Your task to perform on an android device: delete browsing data in the chrome app Image 0: 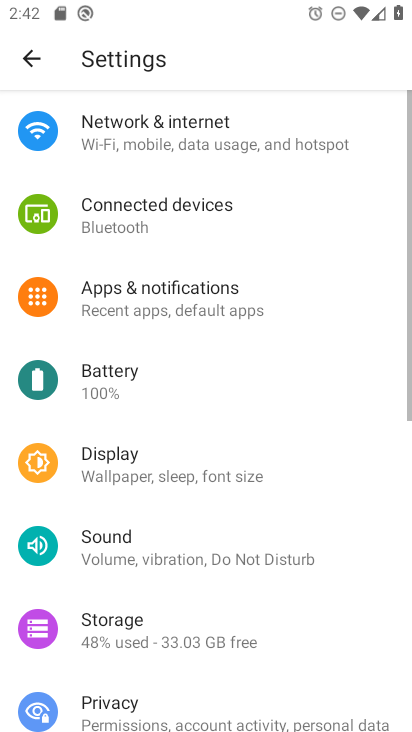
Step 0: press home button
Your task to perform on an android device: delete browsing data in the chrome app Image 1: 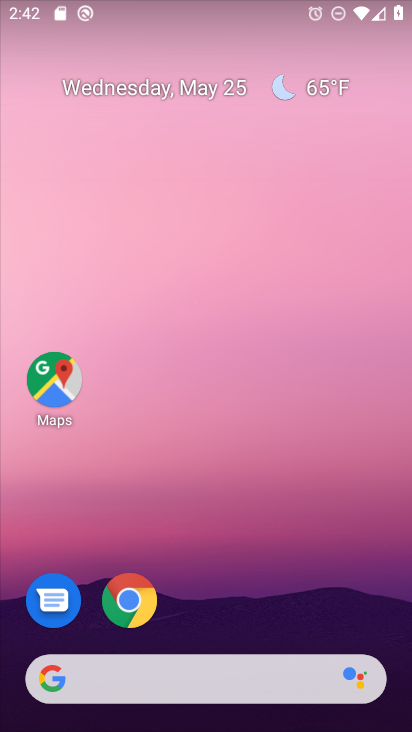
Step 1: click (120, 594)
Your task to perform on an android device: delete browsing data in the chrome app Image 2: 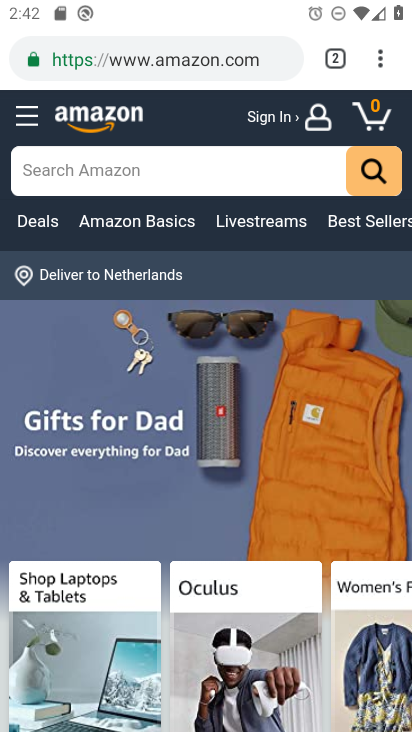
Step 2: drag from (381, 53) to (203, 332)
Your task to perform on an android device: delete browsing data in the chrome app Image 3: 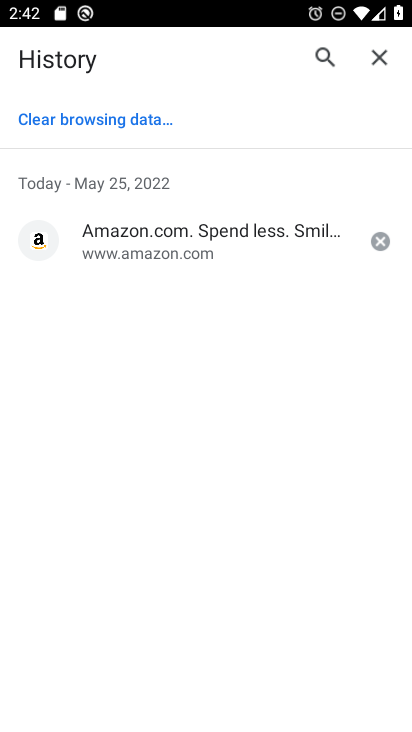
Step 3: click (127, 131)
Your task to perform on an android device: delete browsing data in the chrome app Image 4: 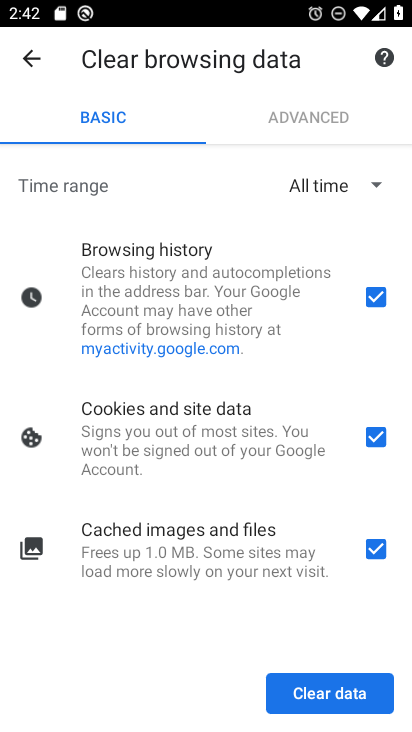
Step 4: click (341, 692)
Your task to perform on an android device: delete browsing data in the chrome app Image 5: 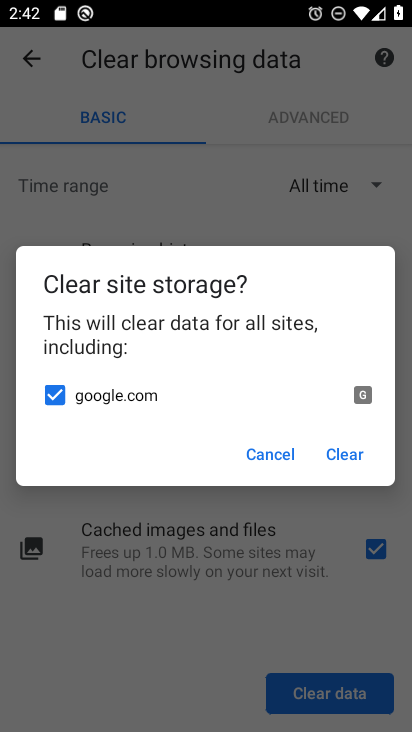
Step 5: click (359, 453)
Your task to perform on an android device: delete browsing data in the chrome app Image 6: 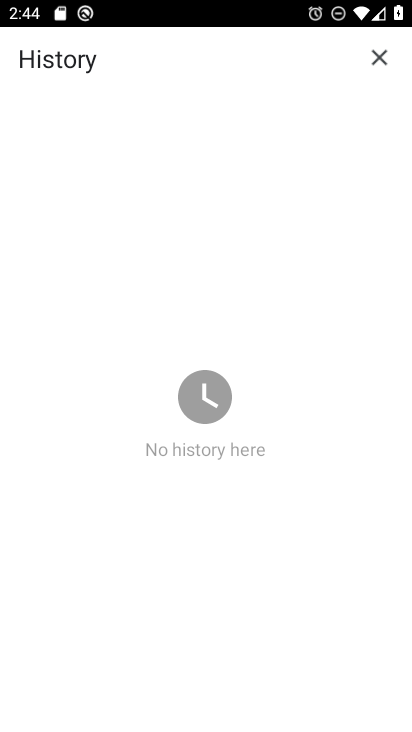
Step 6: task complete